Your task to perform on an android device: Search for sushi restaurants on Maps Image 0: 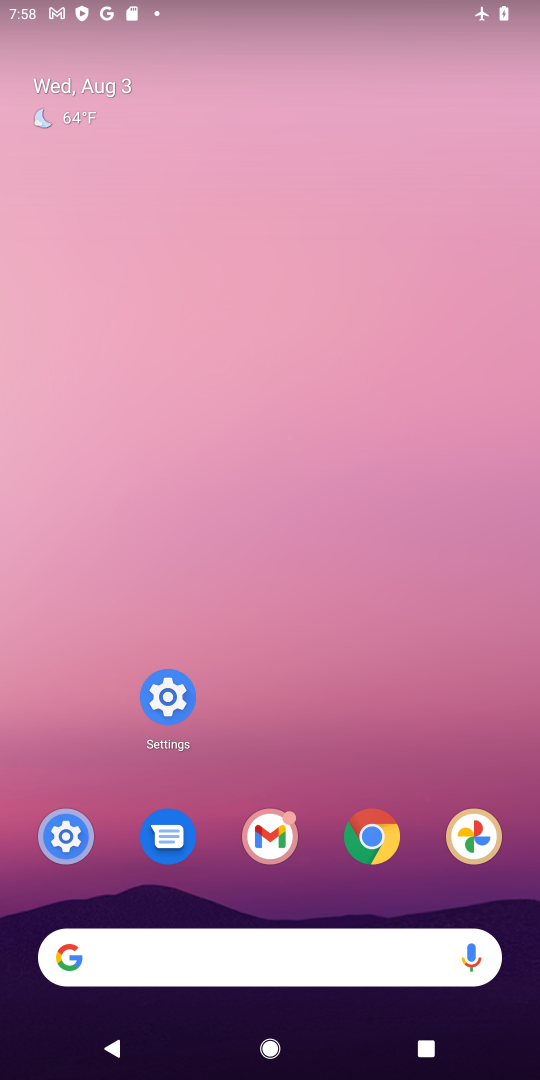
Step 0: drag from (513, 980) to (380, 157)
Your task to perform on an android device: Search for sushi restaurants on Maps Image 1: 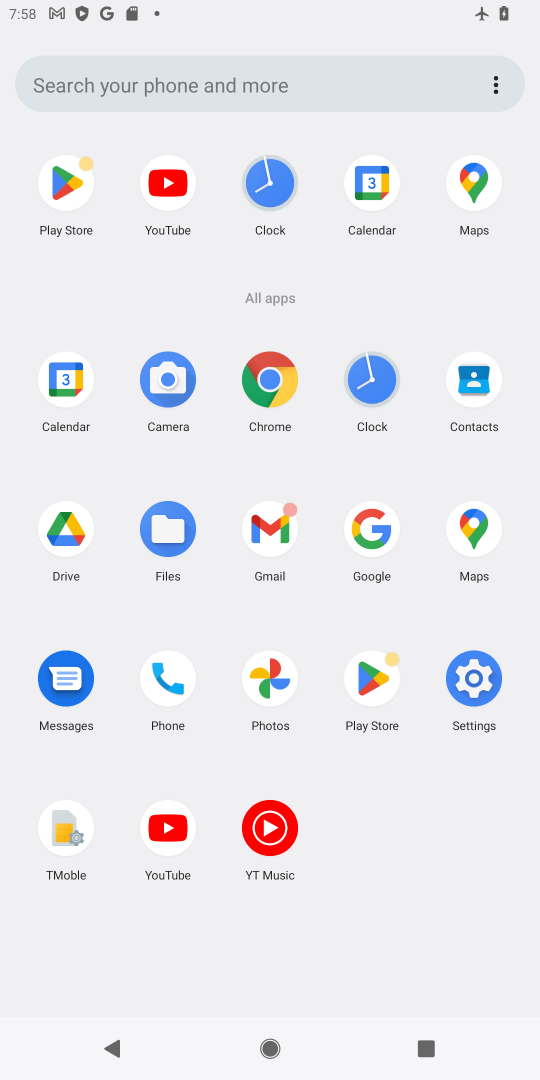
Step 1: click (481, 187)
Your task to perform on an android device: Search for sushi restaurants on Maps Image 2: 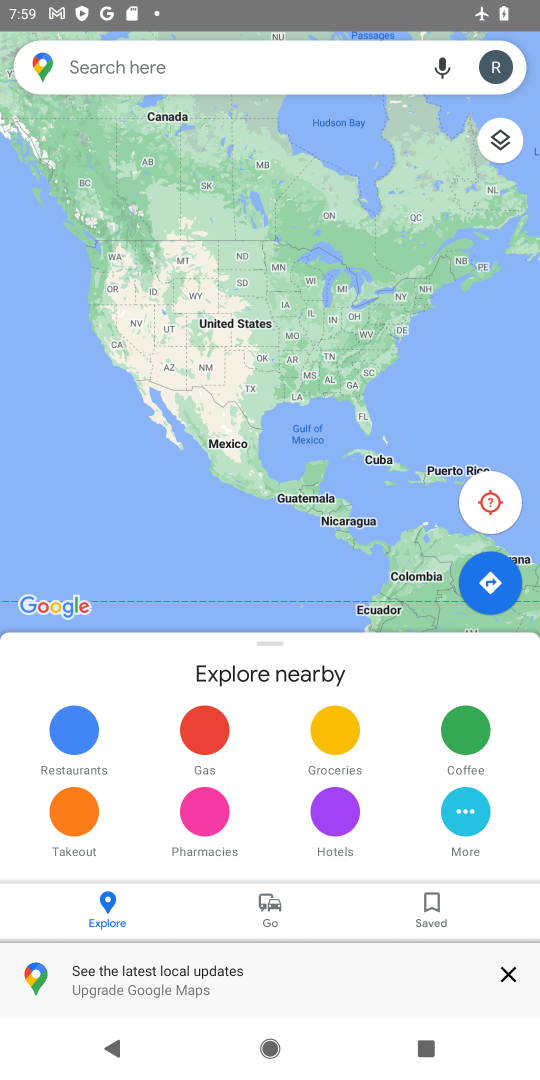
Step 2: click (133, 72)
Your task to perform on an android device: Search for sushi restaurants on Maps Image 3: 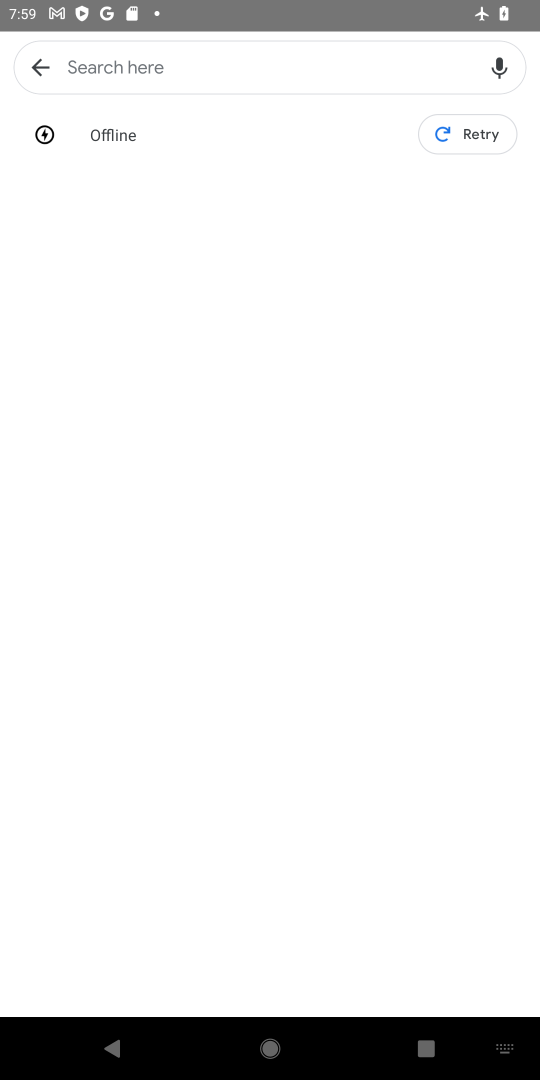
Step 3: type "sushi restaurants"
Your task to perform on an android device: Search for sushi restaurants on Maps Image 4: 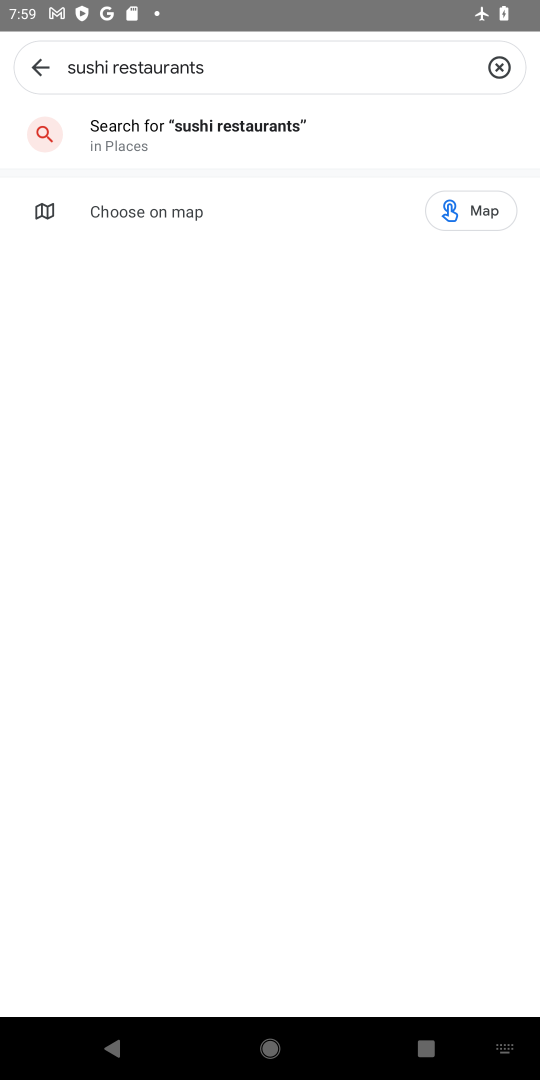
Step 4: click (268, 121)
Your task to perform on an android device: Search for sushi restaurants on Maps Image 5: 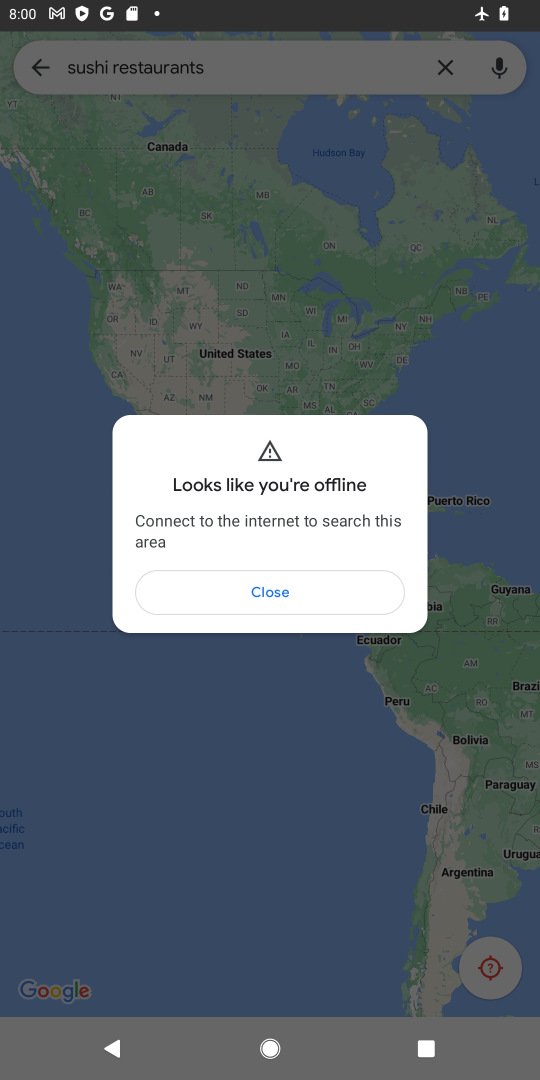
Step 5: task complete